Your task to perform on an android device: Open ESPN.com Image 0: 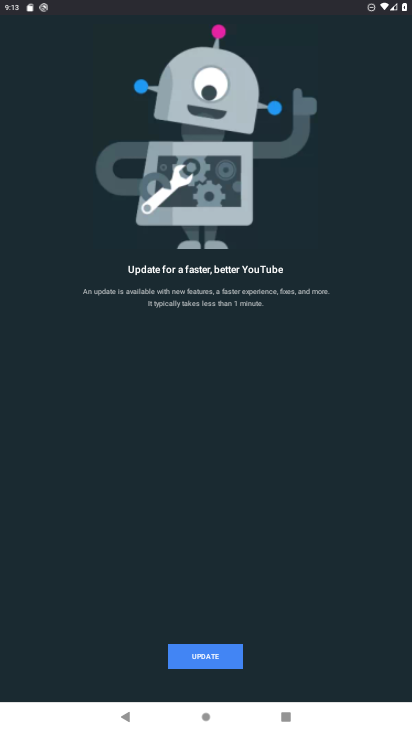
Step 0: press home button
Your task to perform on an android device: Open ESPN.com Image 1: 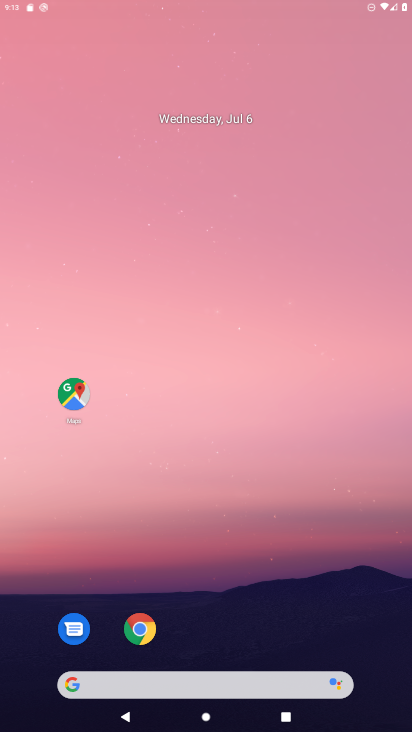
Step 1: drag from (308, 689) to (270, 22)
Your task to perform on an android device: Open ESPN.com Image 2: 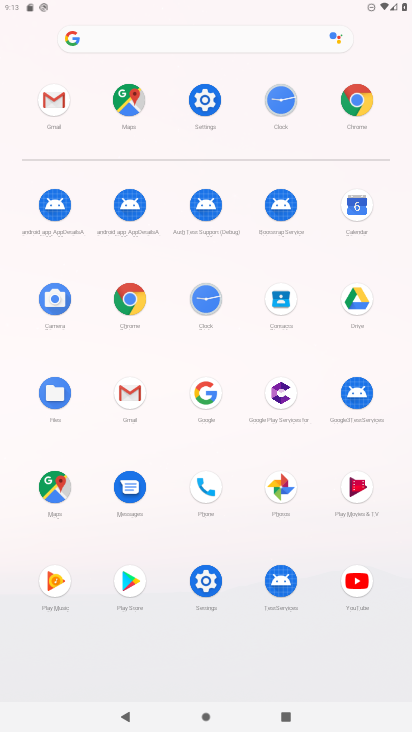
Step 2: drag from (143, 297) to (188, 297)
Your task to perform on an android device: Open ESPN.com Image 3: 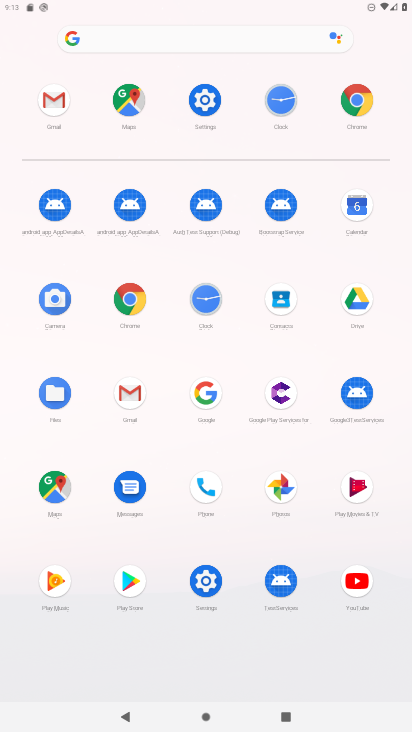
Step 3: click (138, 308)
Your task to perform on an android device: Open ESPN.com Image 4: 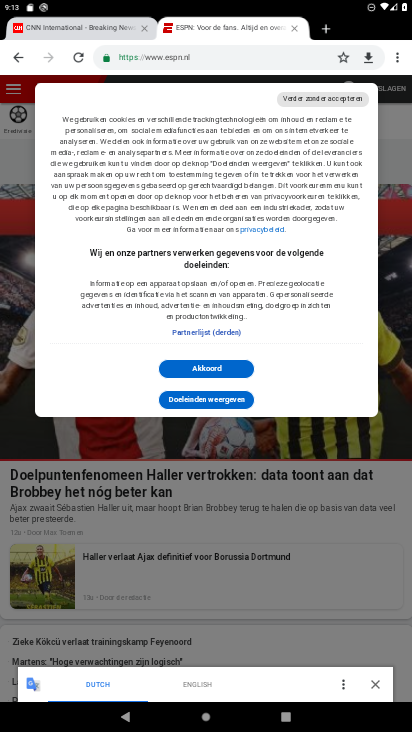
Step 4: task complete